Your task to perform on an android device: Do I have any events tomorrow? Image 0: 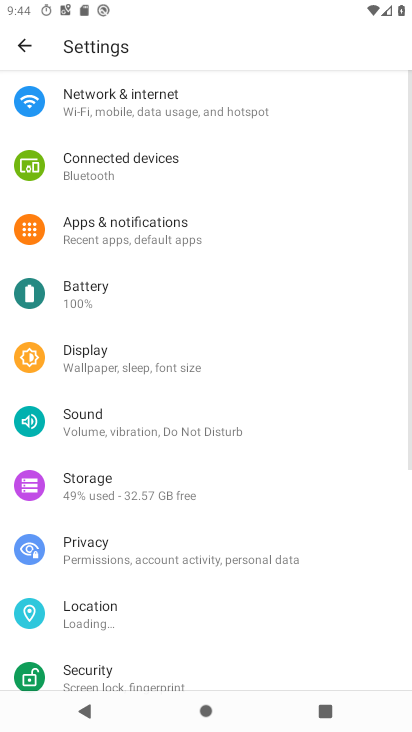
Step 0: press home button
Your task to perform on an android device: Do I have any events tomorrow? Image 1: 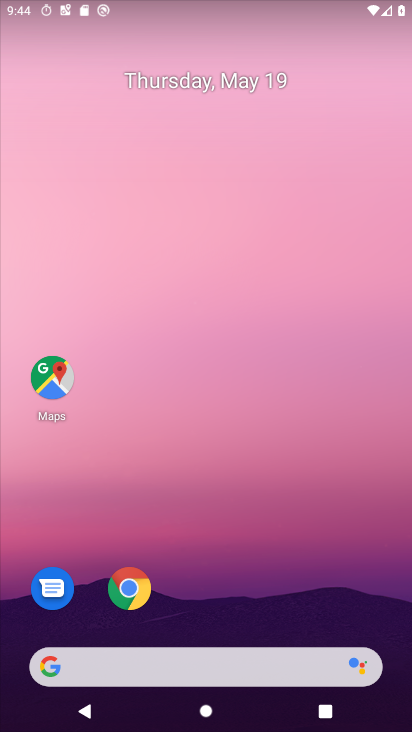
Step 1: drag from (165, 663) to (315, 139)
Your task to perform on an android device: Do I have any events tomorrow? Image 2: 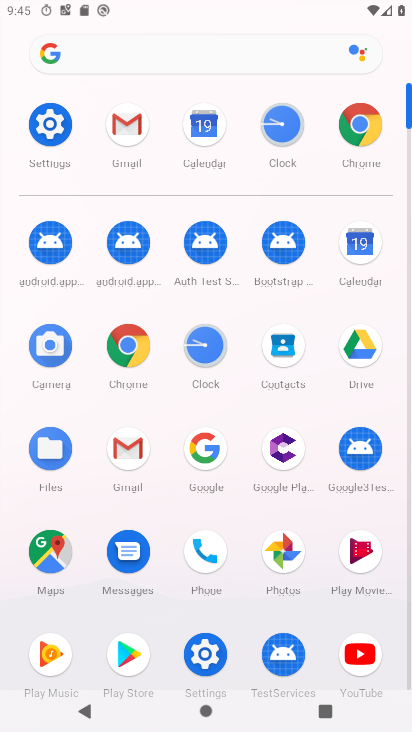
Step 2: click (210, 127)
Your task to perform on an android device: Do I have any events tomorrow? Image 3: 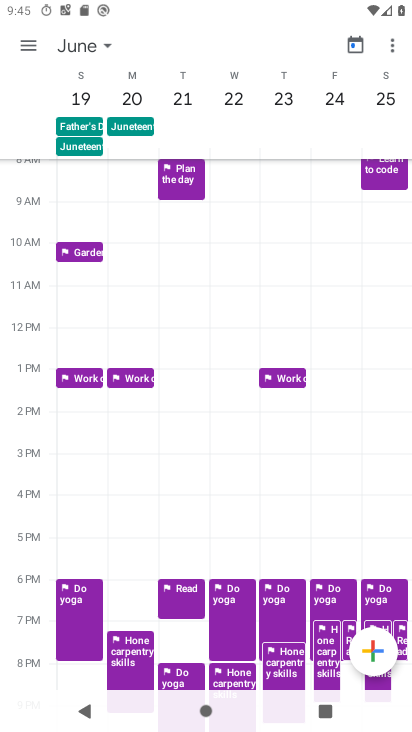
Step 3: click (76, 43)
Your task to perform on an android device: Do I have any events tomorrow? Image 4: 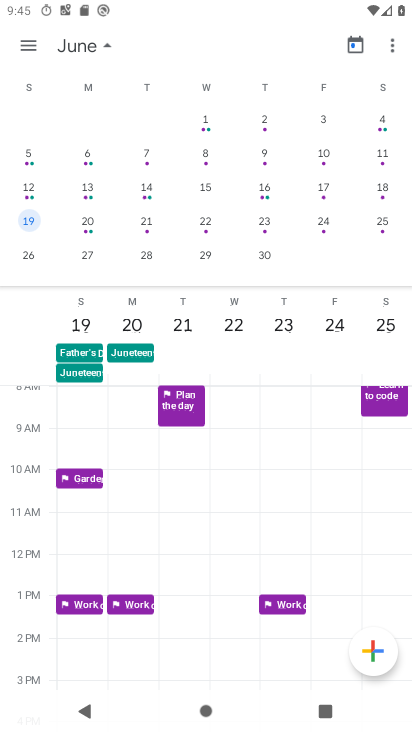
Step 4: drag from (148, 177) to (407, 193)
Your task to perform on an android device: Do I have any events tomorrow? Image 5: 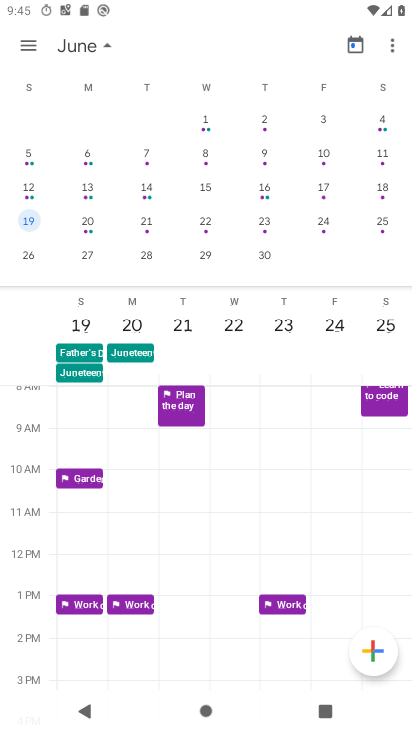
Step 5: drag from (98, 179) to (384, 156)
Your task to perform on an android device: Do I have any events tomorrow? Image 6: 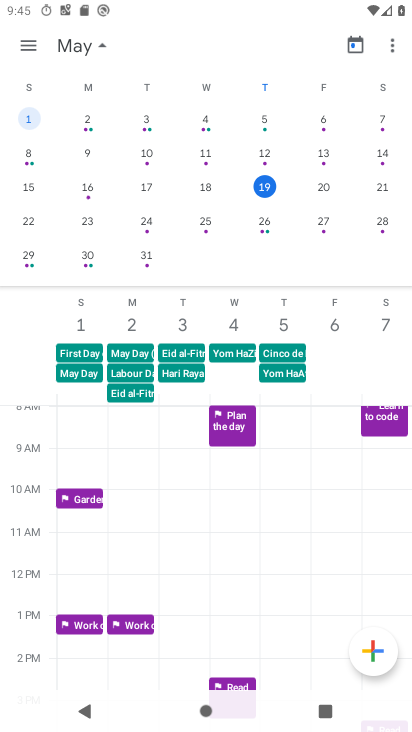
Step 6: click (324, 190)
Your task to perform on an android device: Do I have any events tomorrow? Image 7: 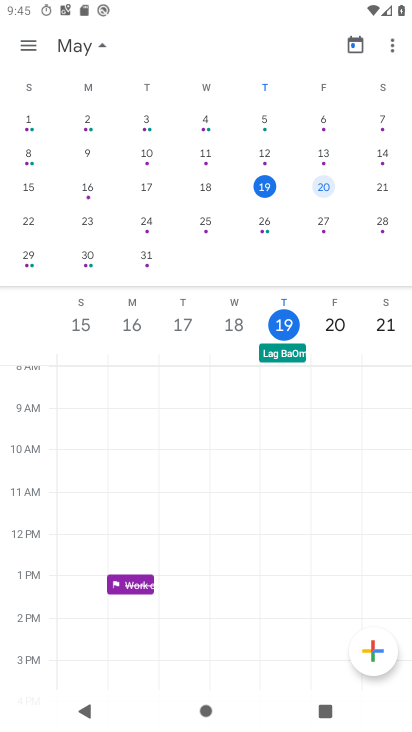
Step 7: click (27, 47)
Your task to perform on an android device: Do I have any events tomorrow? Image 8: 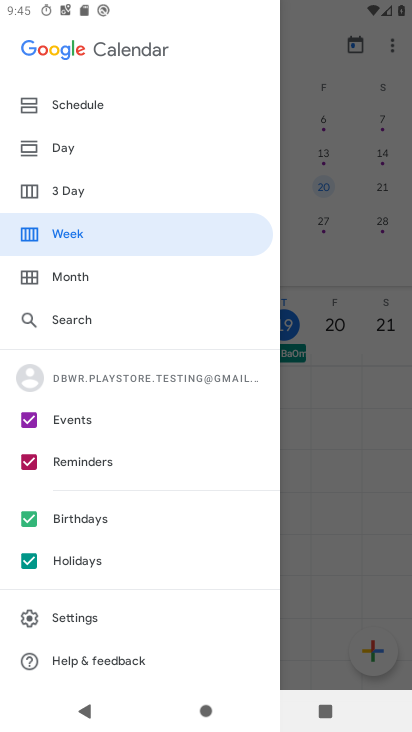
Step 8: click (74, 151)
Your task to perform on an android device: Do I have any events tomorrow? Image 9: 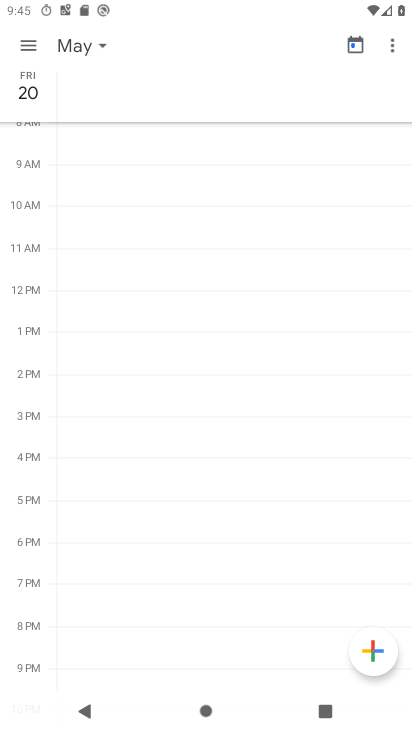
Step 9: click (29, 45)
Your task to perform on an android device: Do I have any events tomorrow? Image 10: 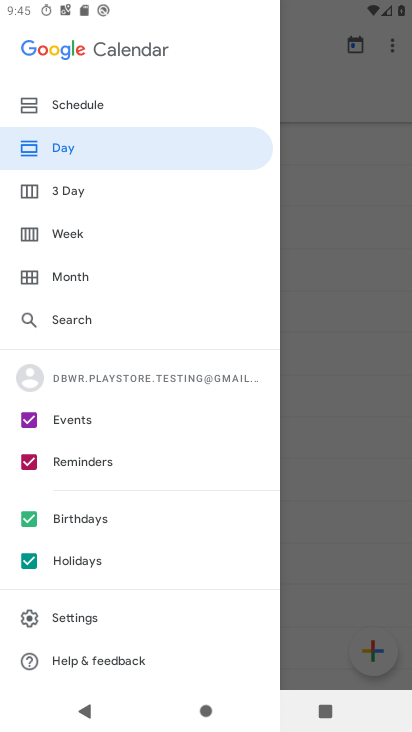
Step 10: click (96, 101)
Your task to perform on an android device: Do I have any events tomorrow? Image 11: 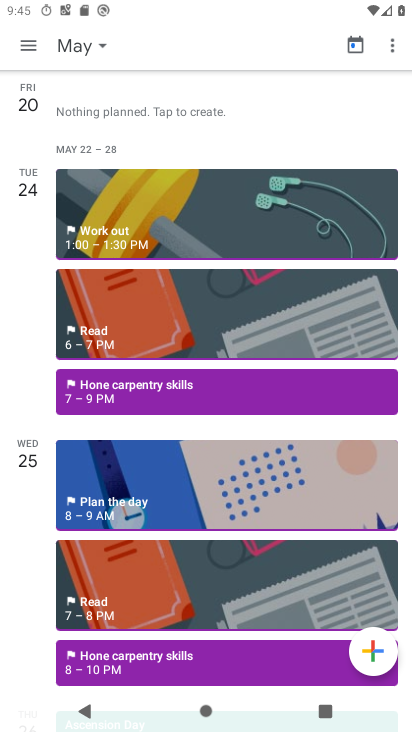
Step 11: task complete